Your task to perform on an android device: Check the weather Image 0: 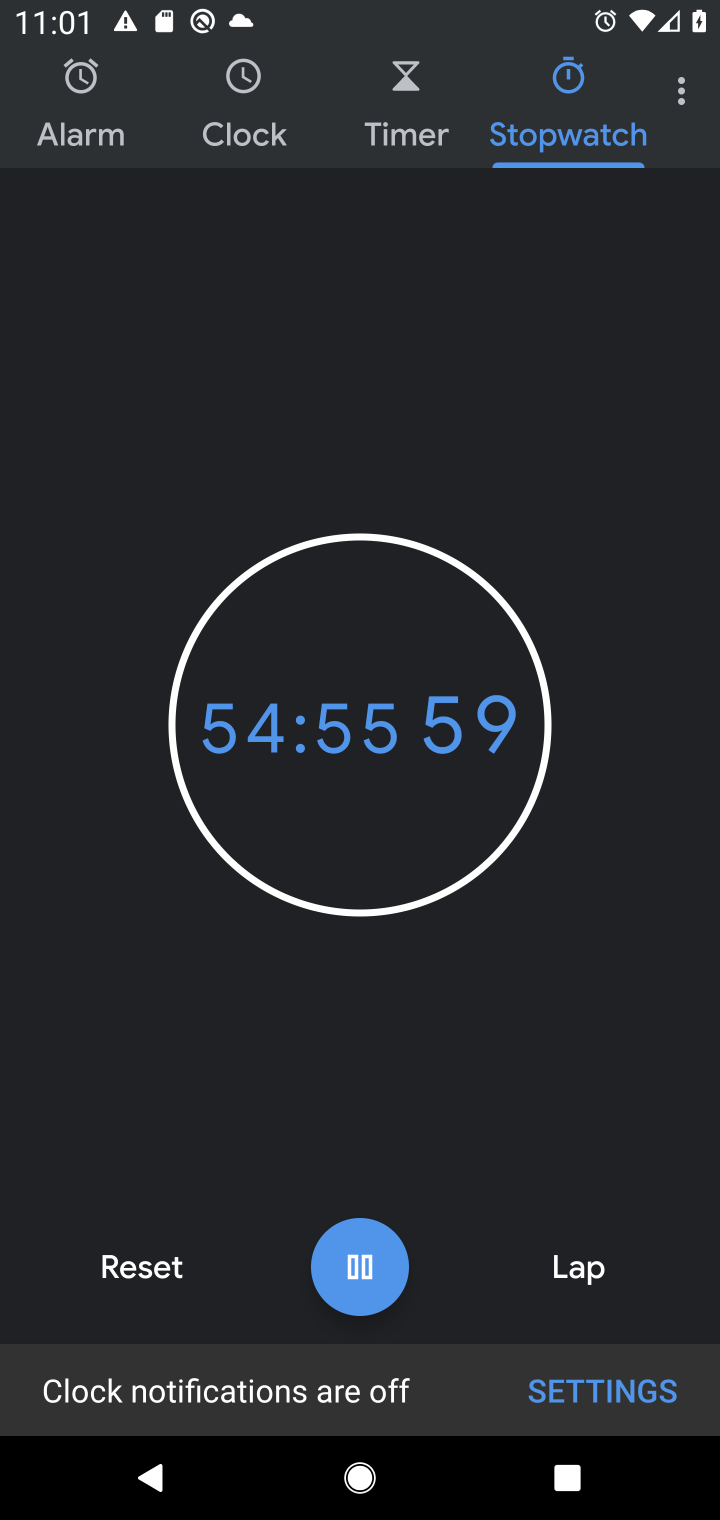
Step 0: press home button
Your task to perform on an android device: Check the weather Image 1: 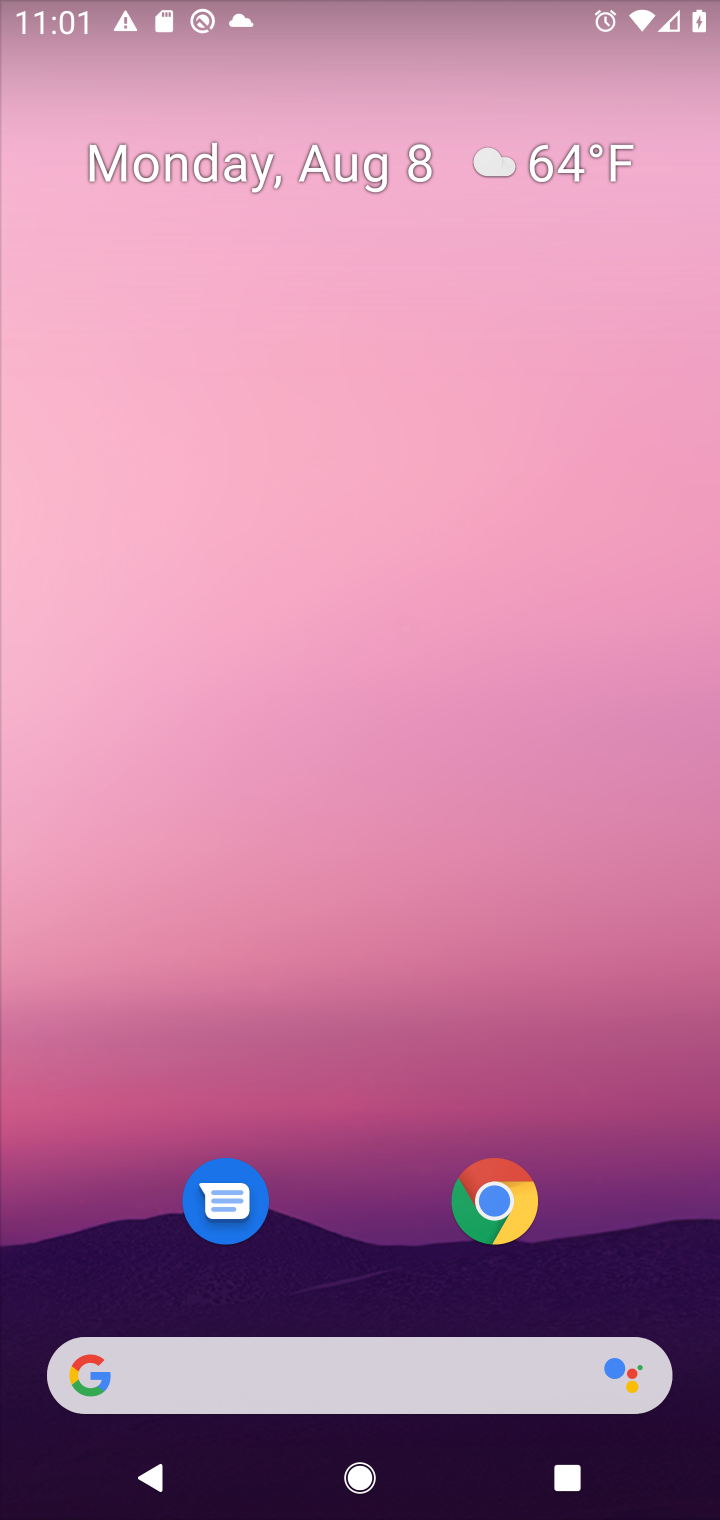
Step 1: click (311, 1374)
Your task to perform on an android device: Check the weather Image 2: 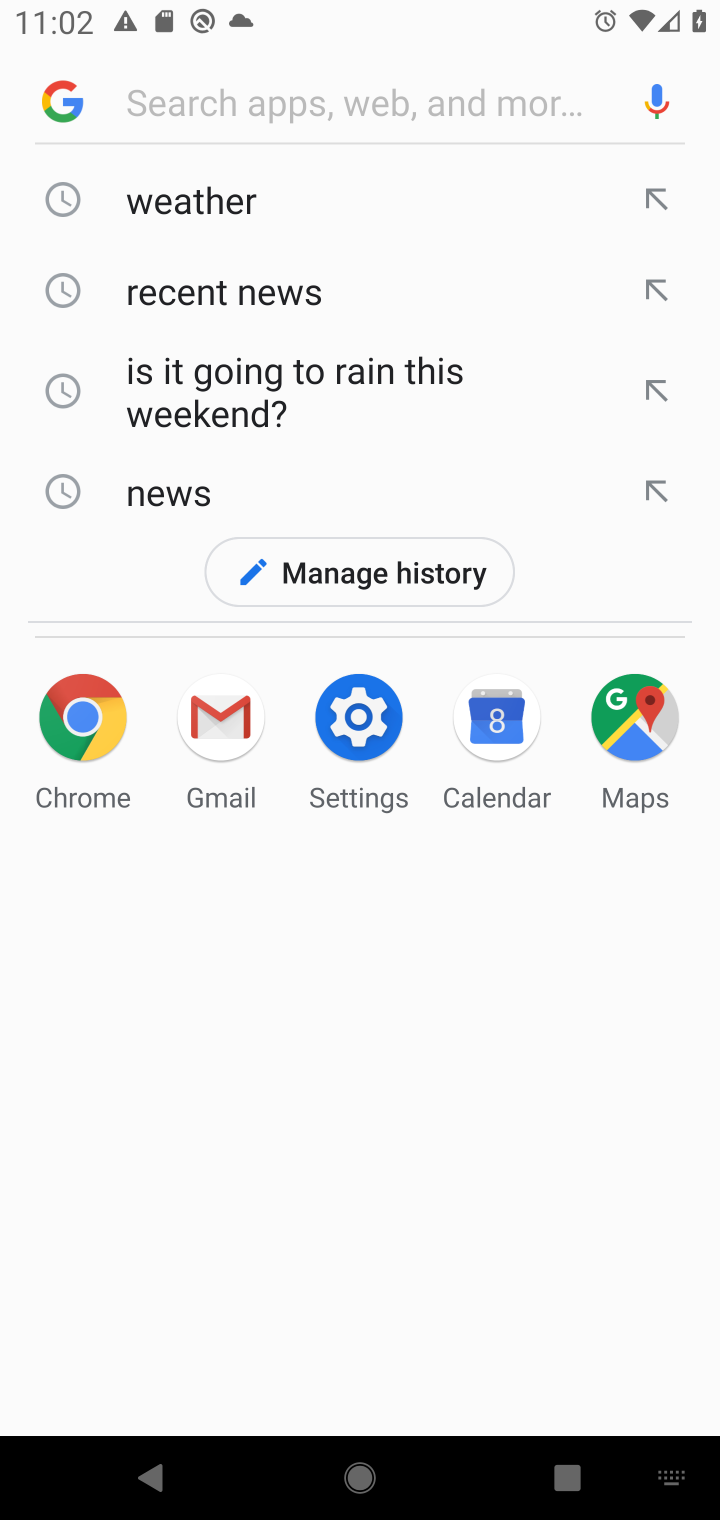
Step 2: click (235, 197)
Your task to perform on an android device: Check the weather Image 3: 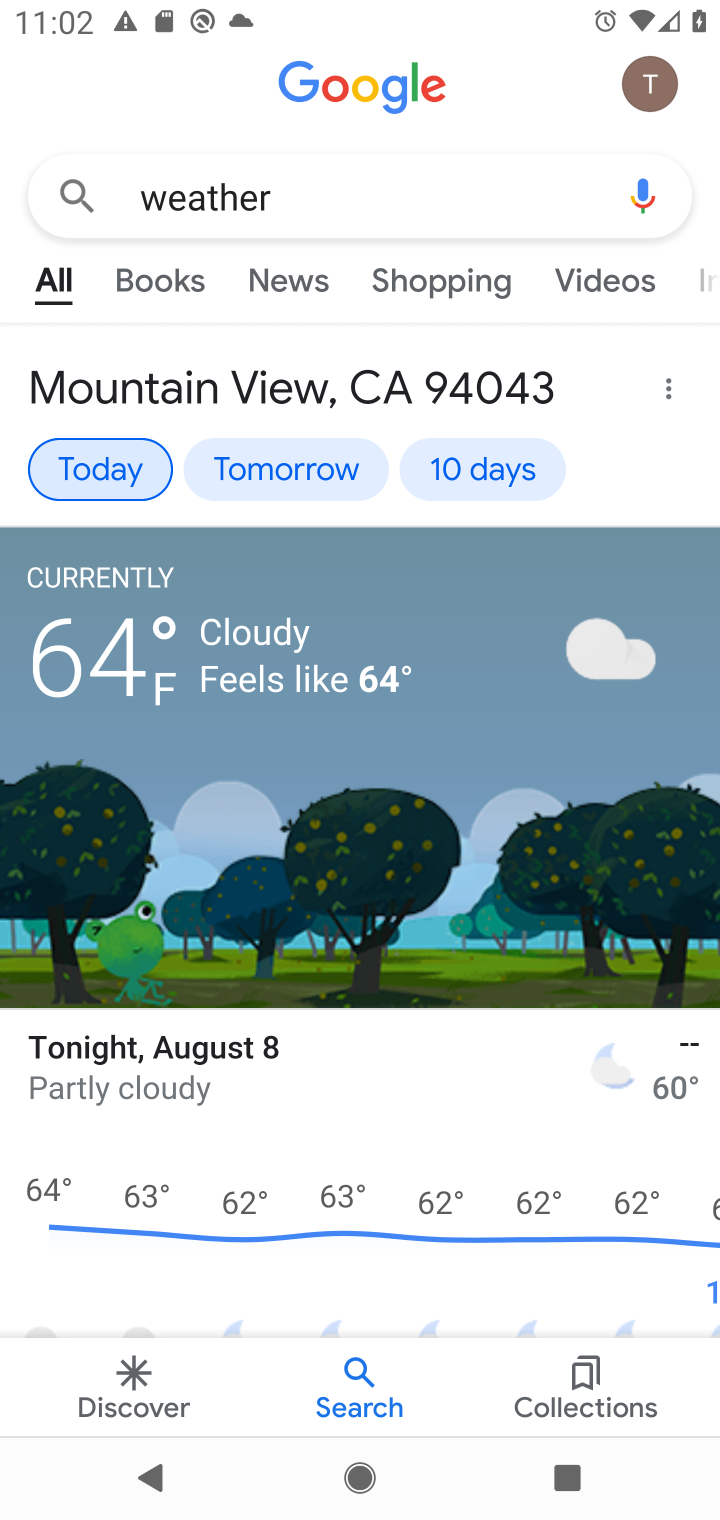
Step 3: task complete